Your task to perform on an android device: Search for Mexican restaurants on Maps Image 0: 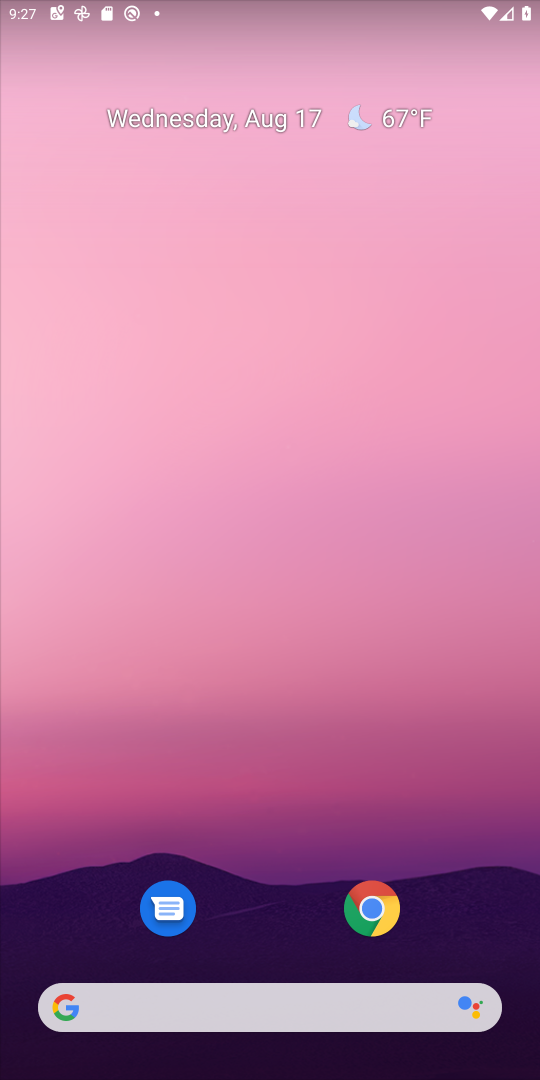
Step 0: drag from (290, 928) to (273, 97)
Your task to perform on an android device: Search for Mexican restaurants on Maps Image 1: 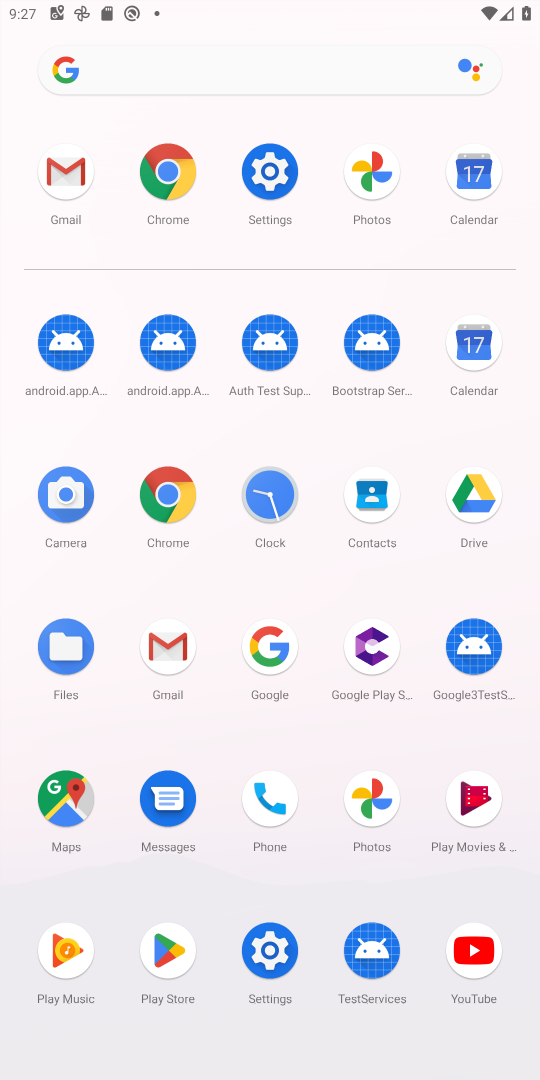
Step 1: click (66, 797)
Your task to perform on an android device: Search for Mexican restaurants on Maps Image 2: 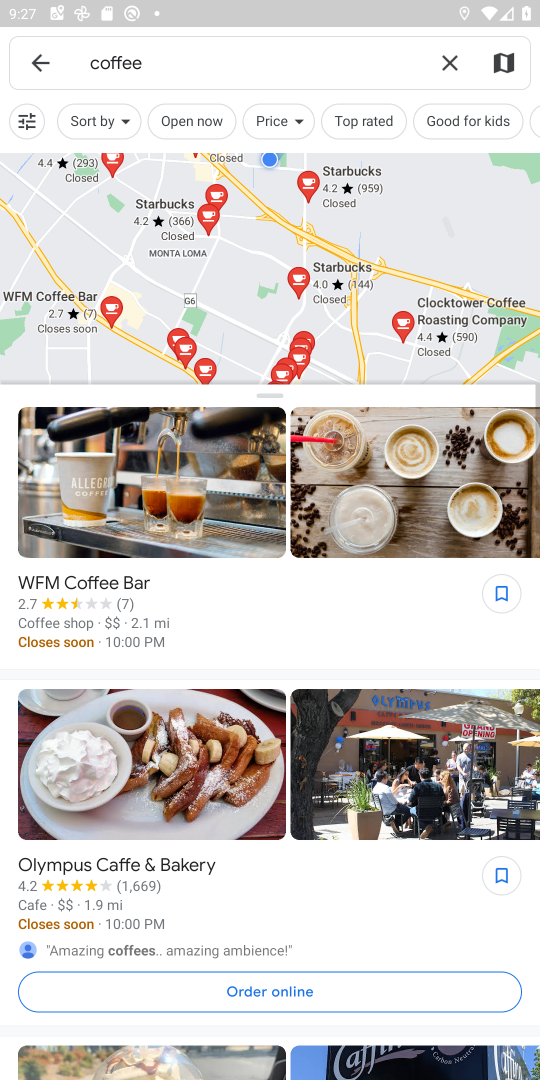
Step 2: click (452, 63)
Your task to perform on an android device: Search for Mexican restaurants on Maps Image 3: 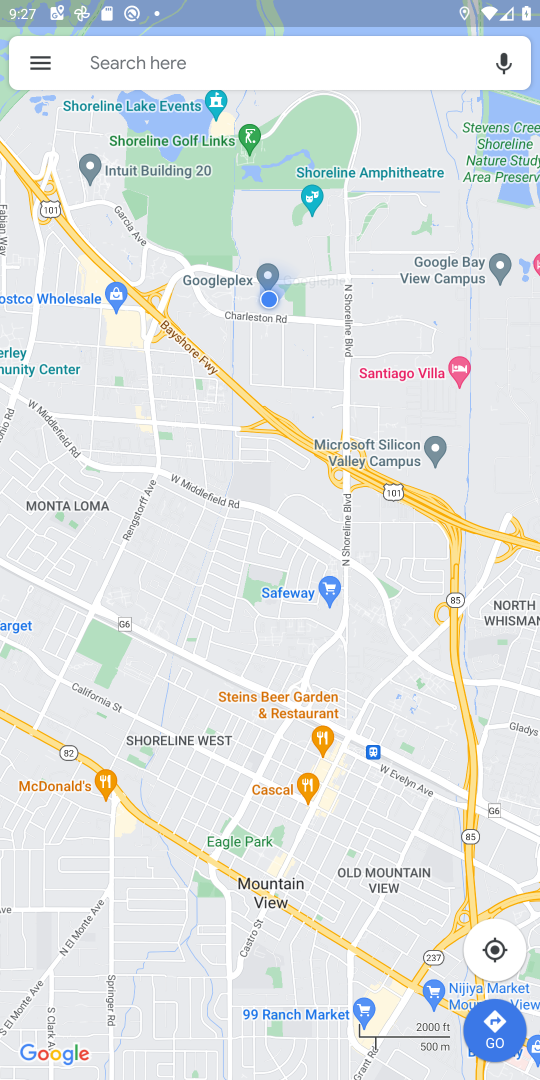
Step 3: click (313, 54)
Your task to perform on an android device: Search for Mexican restaurants on Maps Image 4: 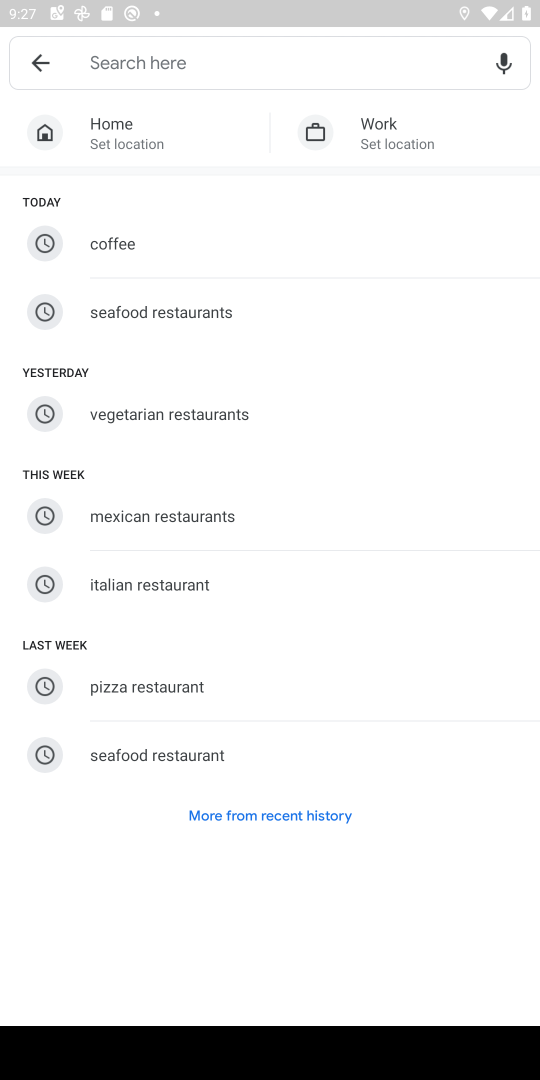
Step 4: type " Mexican restaurants "
Your task to perform on an android device: Search for Mexican restaurants on Maps Image 5: 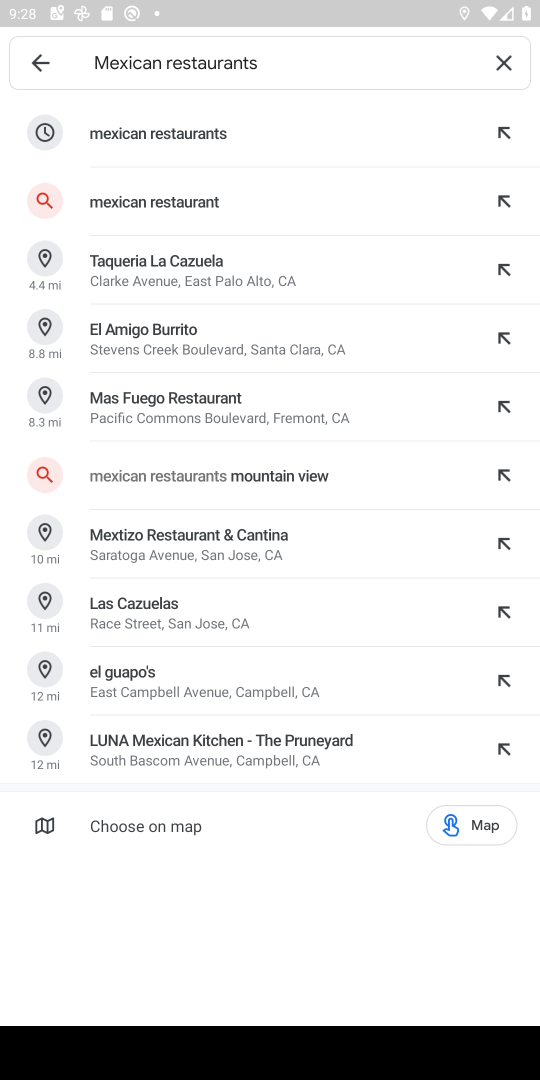
Step 5: click (151, 129)
Your task to perform on an android device: Search for Mexican restaurants on Maps Image 6: 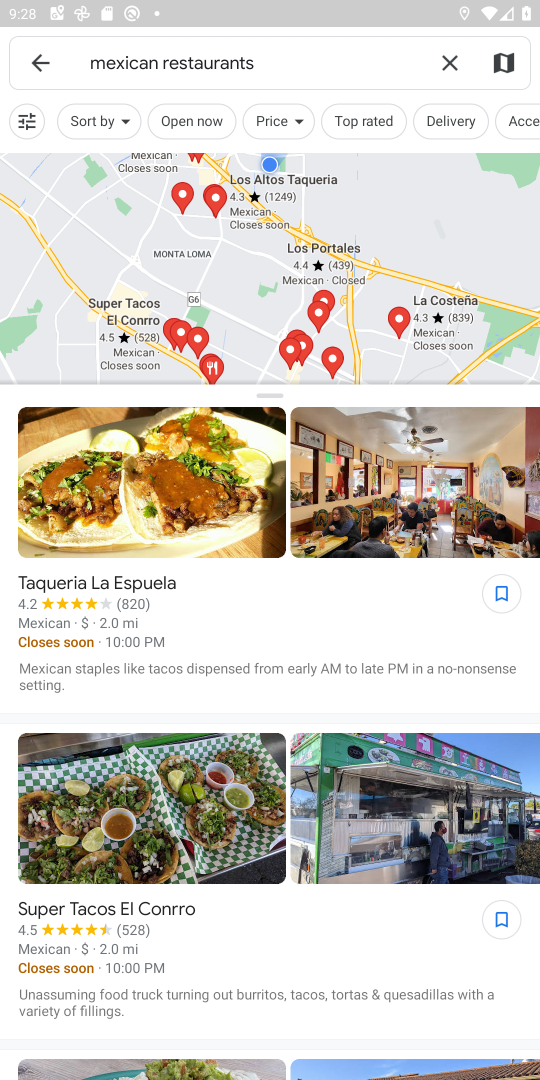
Step 6: task complete